Your task to perform on an android device: Check the settings for the Google Chrome app Image 0: 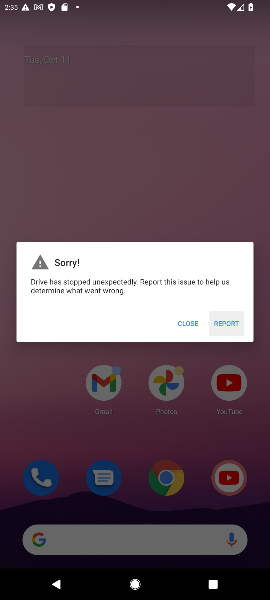
Step 0: press home button
Your task to perform on an android device: Check the settings for the Google Chrome app Image 1: 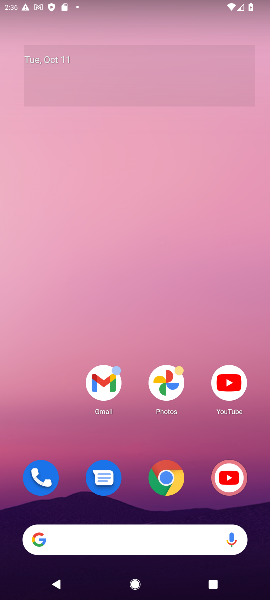
Step 1: click (163, 488)
Your task to perform on an android device: Check the settings for the Google Chrome app Image 2: 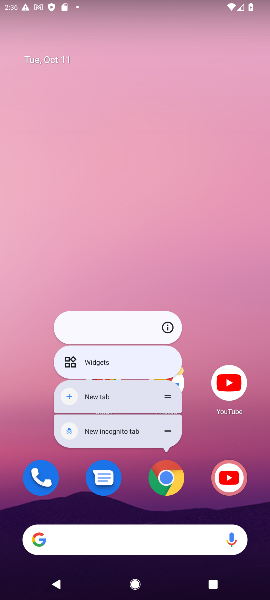
Step 2: click (165, 328)
Your task to perform on an android device: Check the settings for the Google Chrome app Image 3: 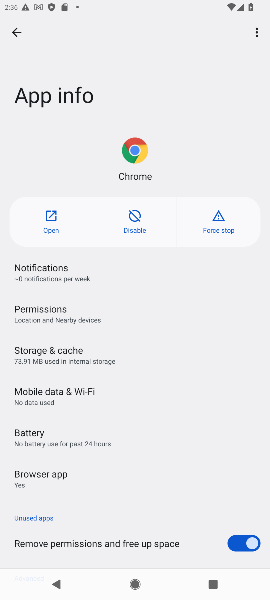
Step 3: task complete